Your task to perform on an android device: change the clock style Image 0: 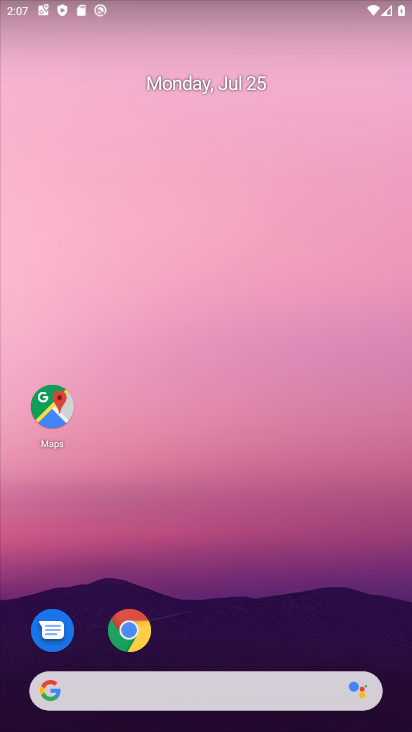
Step 0: drag from (219, 607) to (263, 240)
Your task to perform on an android device: change the clock style Image 1: 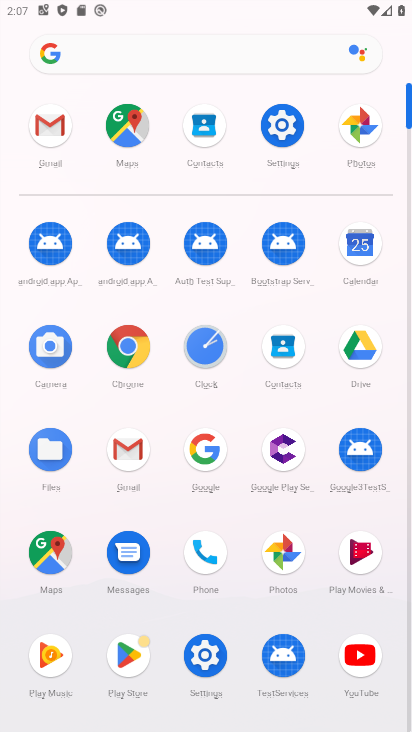
Step 1: click (218, 358)
Your task to perform on an android device: change the clock style Image 2: 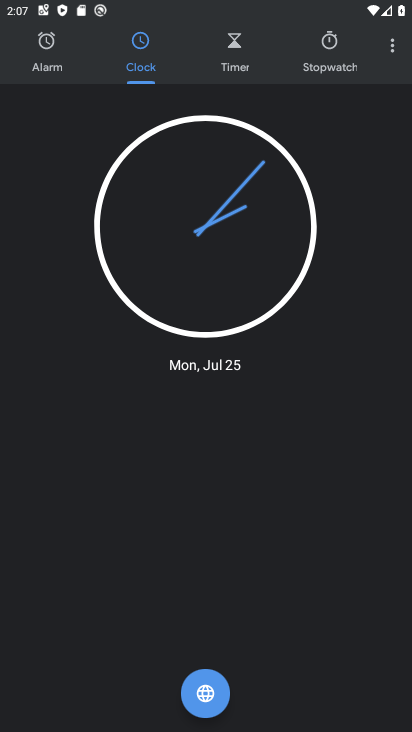
Step 2: click (394, 70)
Your task to perform on an android device: change the clock style Image 3: 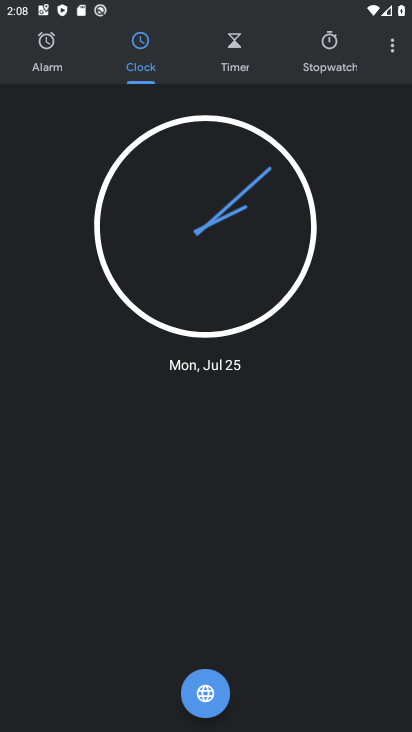
Step 3: click (394, 33)
Your task to perform on an android device: change the clock style Image 4: 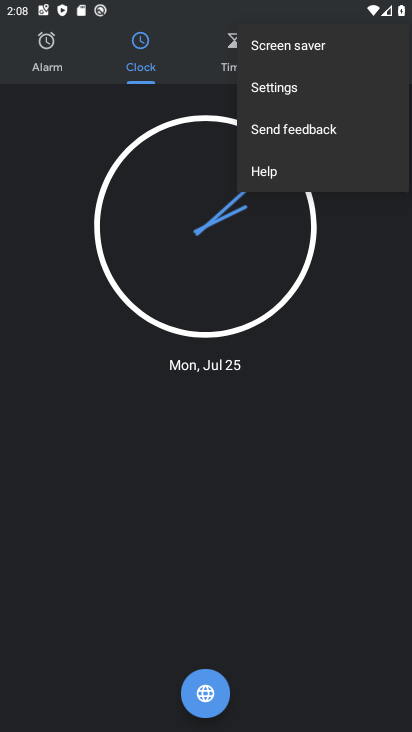
Step 4: click (284, 81)
Your task to perform on an android device: change the clock style Image 5: 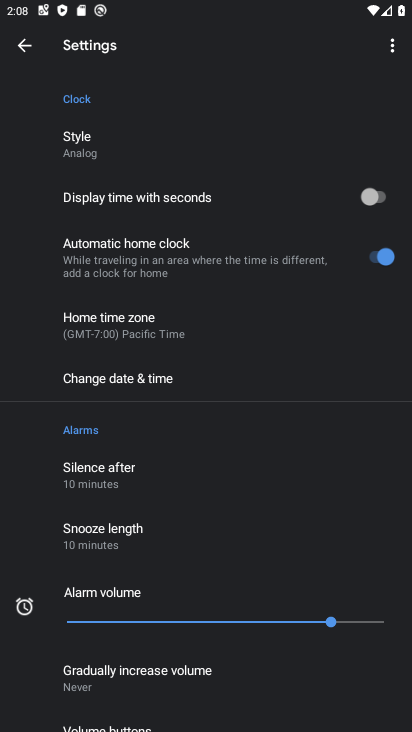
Step 5: click (137, 150)
Your task to perform on an android device: change the clock style Image 6: 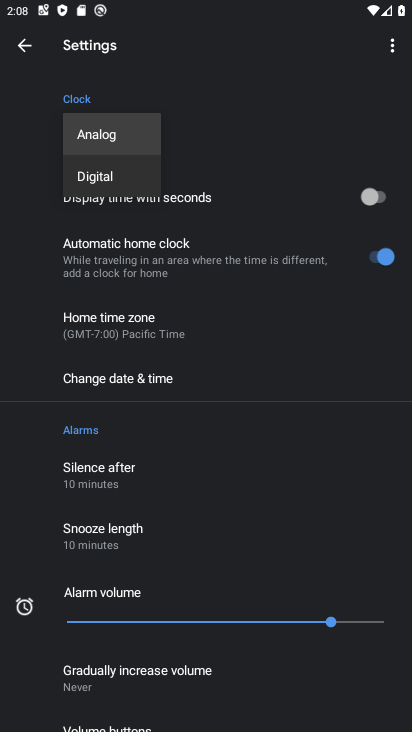
Step 6: click (97, 176)
Your task to perform on an android device: change the clock style Image 7: 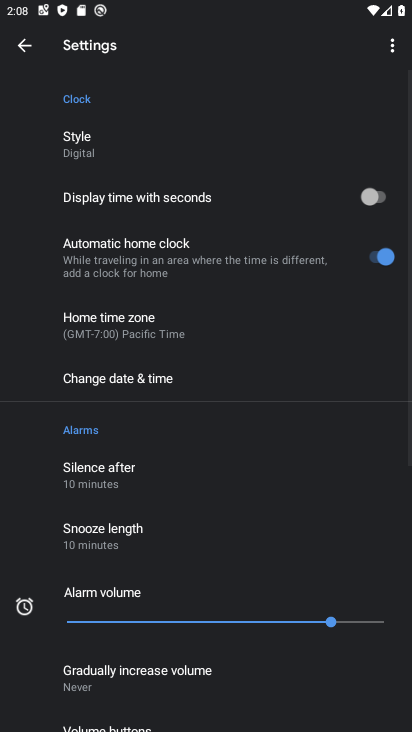
Step 7: task complete